Your task to perform on an android device: Go to wifi settings Image 0: 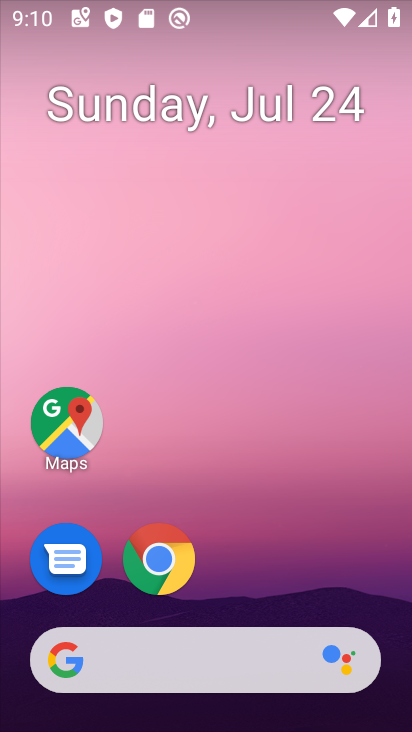
Step 0: drag from (200, 15) to (296, 582)
Your task to perform on an android device: Go to wifi settings Image 1: 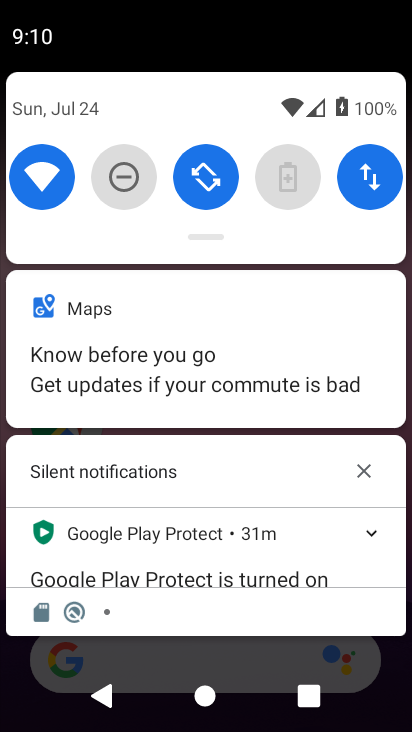
Step 1: click (41, 176)
Your task to perform on an android device: Go to wifi settings Image 2: 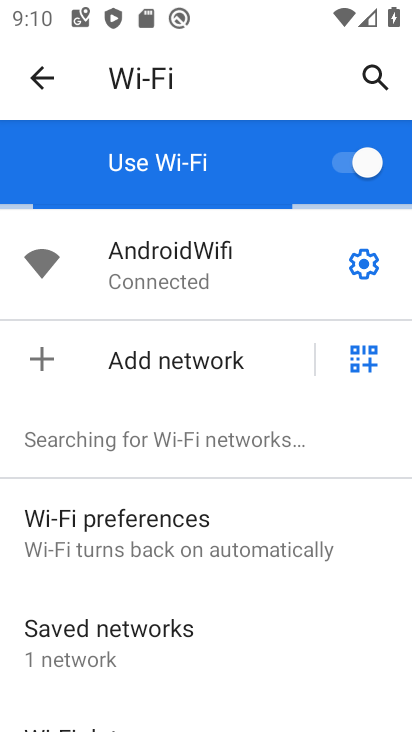
Step 2: task complete